Your task to perform on an android device: Open Android settings Image 0: 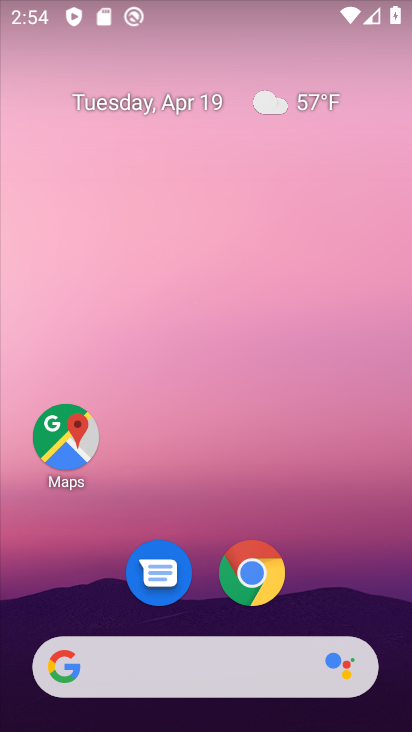
Step 0: drag from (360, 600) to (369, 12)
Your task to perform on an android device: Open Android settings Image 1: 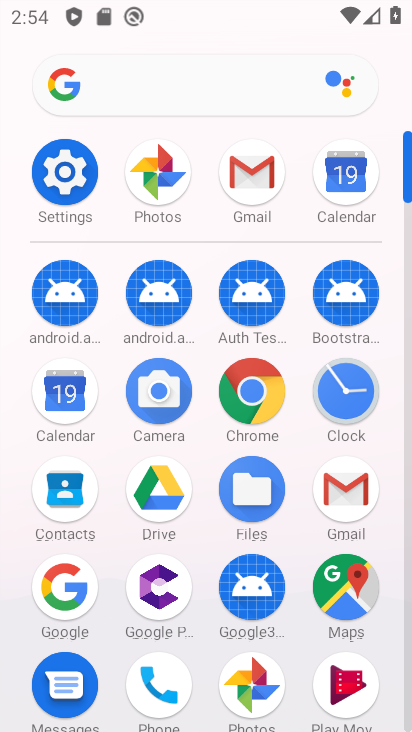
Step 1: click (62, 175)
Your task to perform on an android device: Open Android settings Image 2: 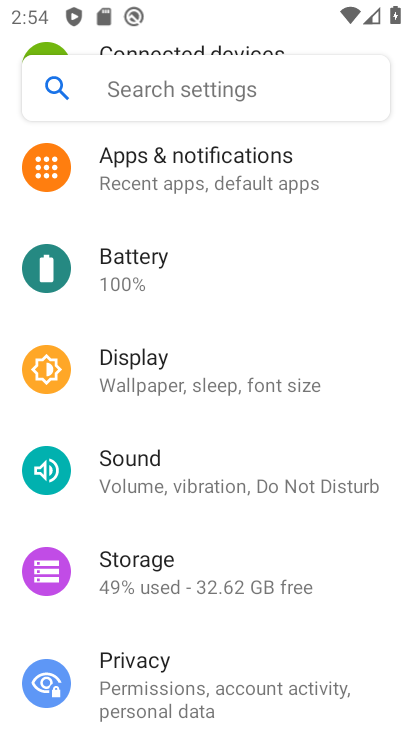
Step 2: drag from (380, 653) to (372, 427)
Your task to perform on an android device: Open Android settings Image 3: 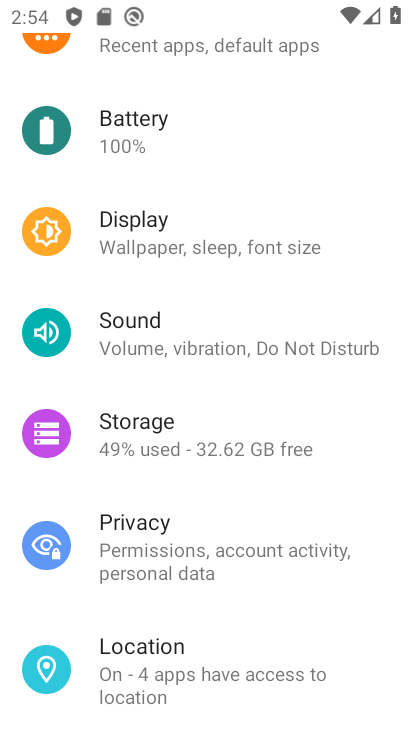
Step 3: drag from (362, 572) to (356, 227)
Your task to perform on an android device: Open Android settings Image 4: 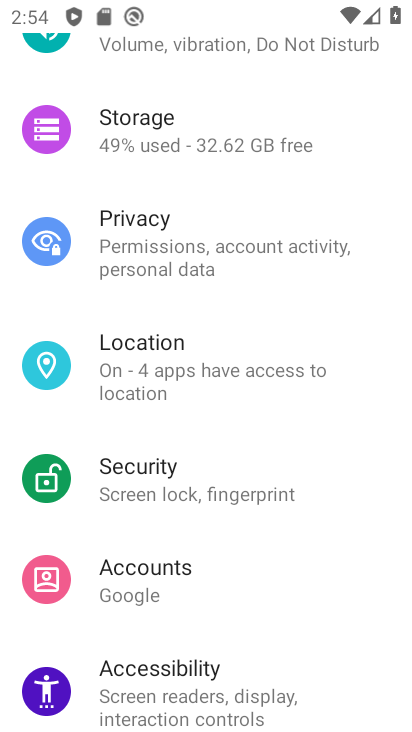
Step 4: drag from (350, 498) to (323, 233)
Your task to perform on an android device: Open Android settings Image 5: 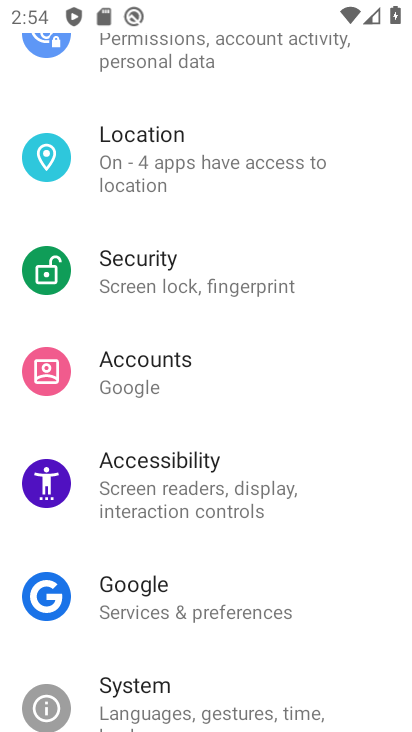
Step 5: click (132, 706)
Your task to perform on an android device: Open Android settings Image 6: 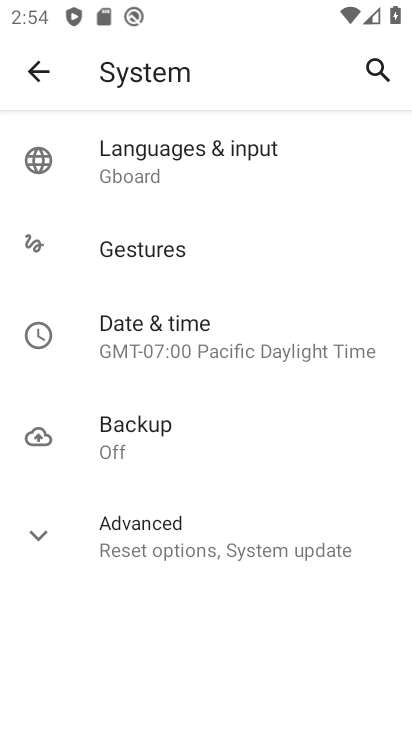
Step 6: click (39, 547)
Your task to perform on an android device: Open Android settings Image 7: 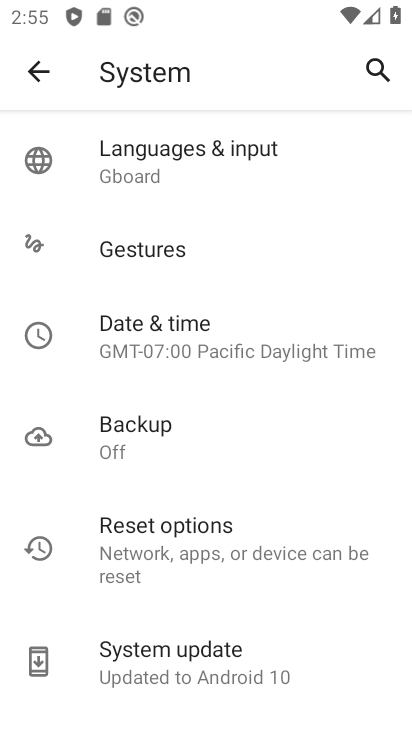
Step 7: task complete